Your task to perform on an android device: turn on data saver in the chrome app Image 0: 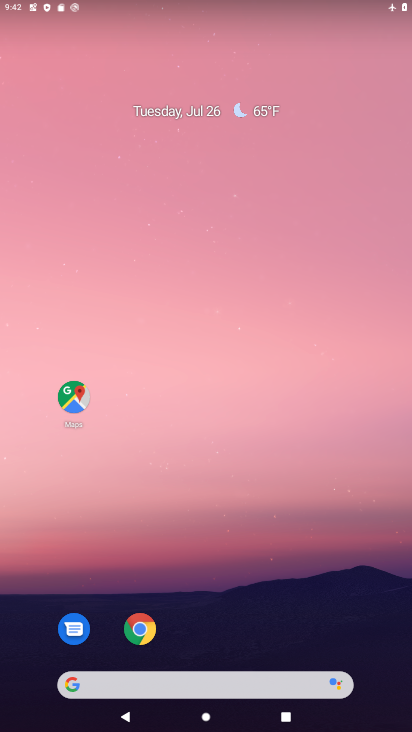
Step 0: drag from (330, 587) to (250, 88)
Your task to perform on an android device: turn on data saver in the chrome app Image 1: 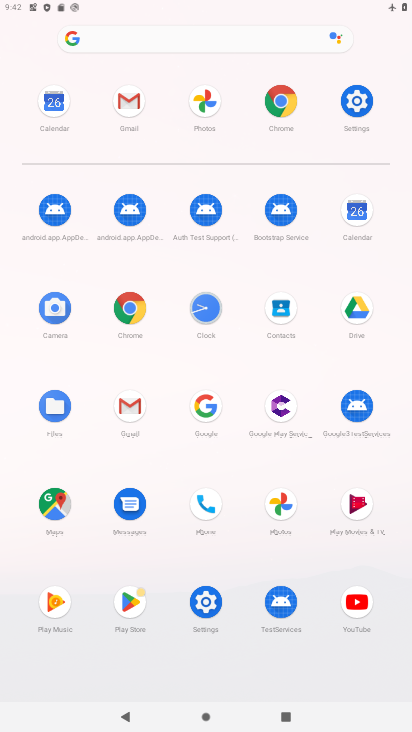
Step 1: click (128, 305)
Your task to perform on an android device: turn on data saver in the chrome app Image 2: 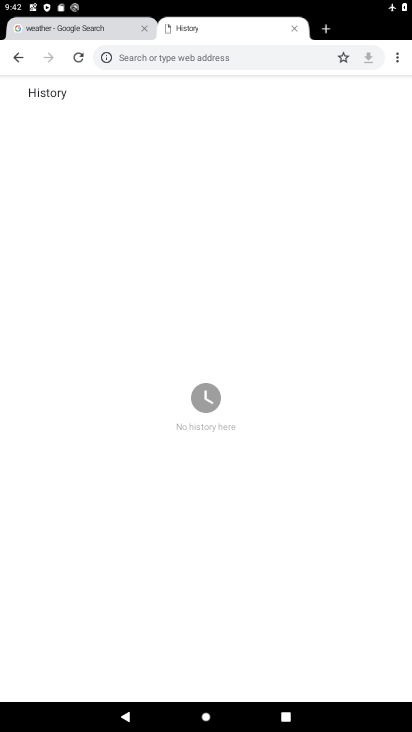
Step 2: drag from (396, 53) to (283, 255)
Your task to perform on an android device: turn on data saver in the chrome app Image 3: 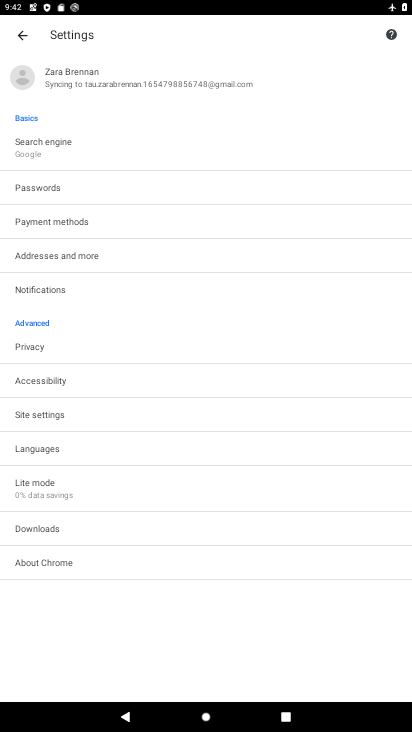
Step 3: click (148, 509)
Your task to perform on an android device: turn on data saver in the chrome app Image 4: 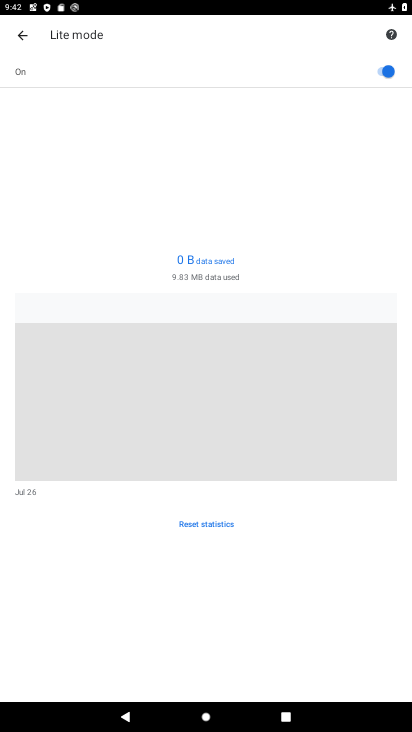
Step 4: task complete